Your task to perform on an android device: turn on translation in the chrome app Image 0: 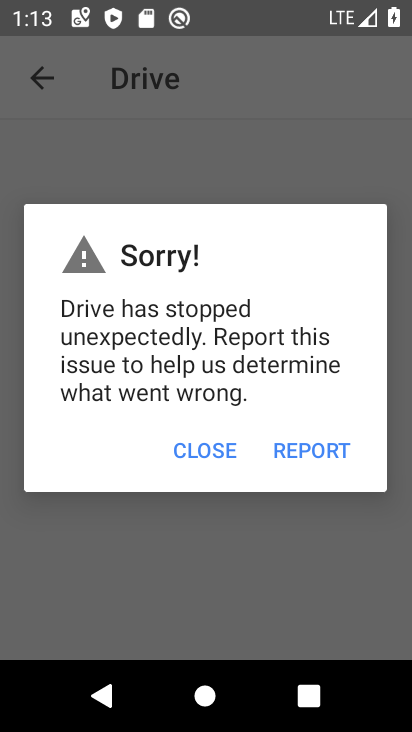
Step 0: press back button
Your task to perform on an android device: turn on translation in the chrome app Image 1: 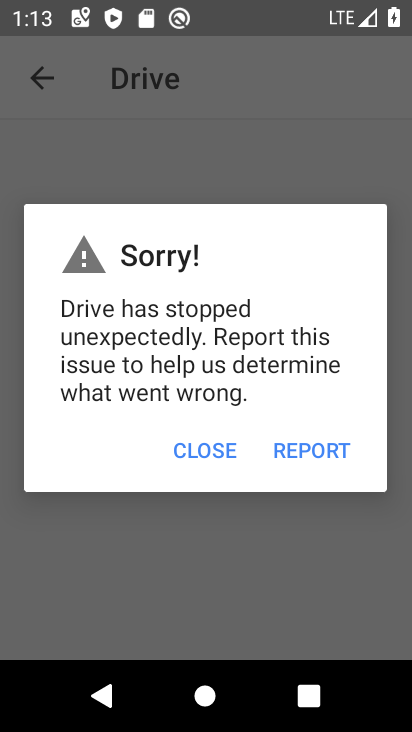
Step 1: press home button
Your task to perform on an android device: turn on translation in the chrome app Image 2: 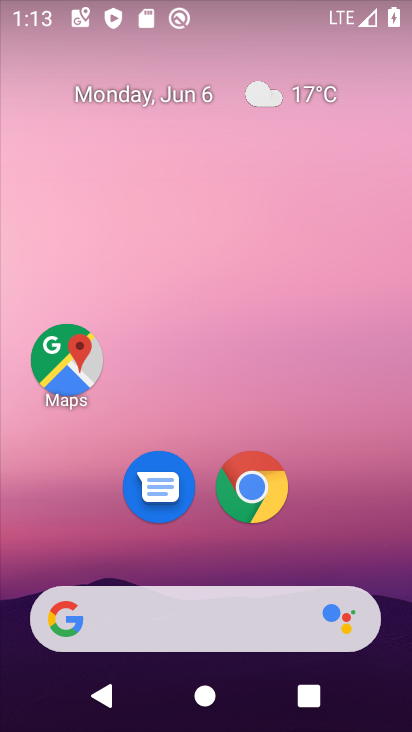
Step 2: click (248, 507)
Your task to perform on an android device: turn on translation in the chrome app Image 3: 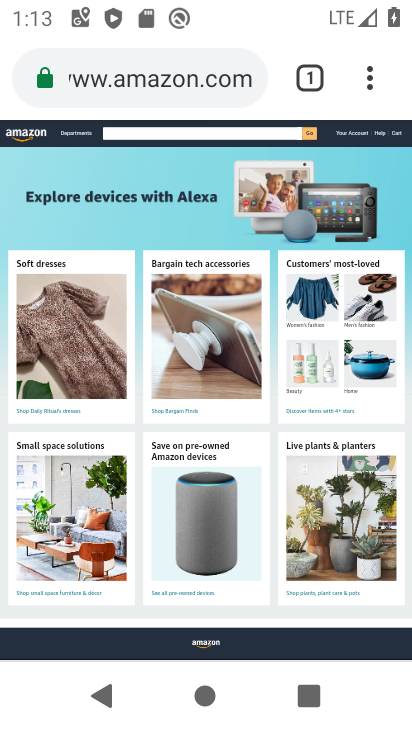
Step 3: drag from (370, 75) to (147, 534)
Your task to perform on an android device: turn on translation in the chrome app Image 4: 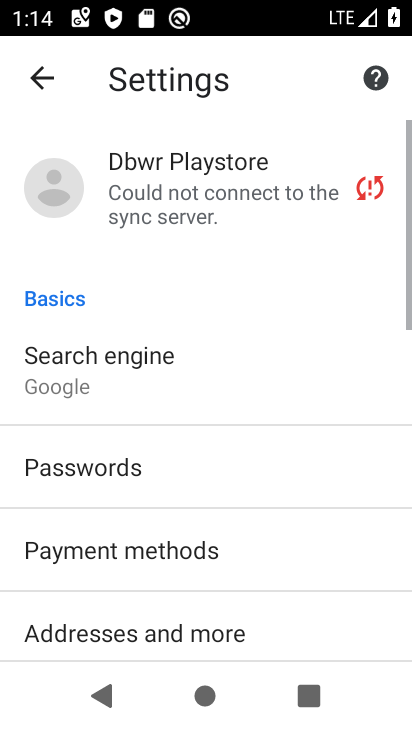
Step 4: drag from (175, 588) to (247, 89)
Your task to perform on an android device: turn on translation in the chrome app Image 5: 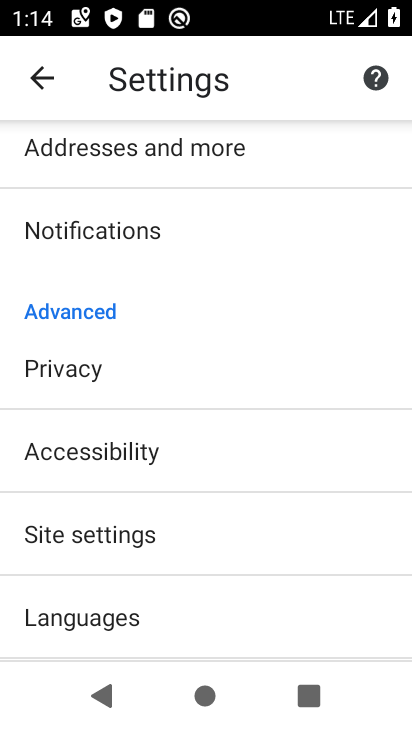
Step 5: click (111, 616)
Your task to perform on an android device: turn on translation in the chrome app Image 6: 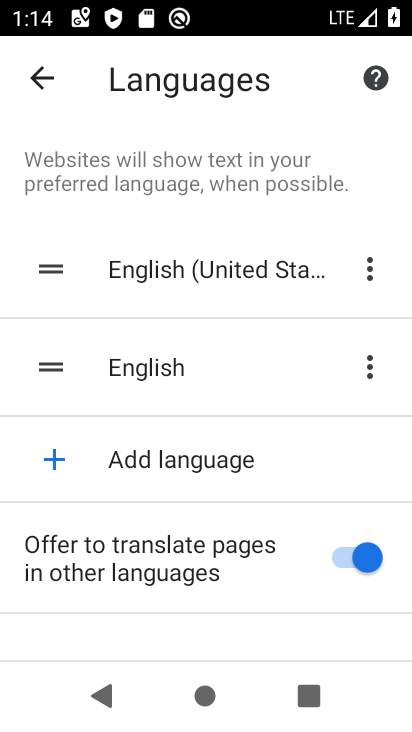
Step 6: task complete